Your task to perform on an android device: change the clock style Image 0: 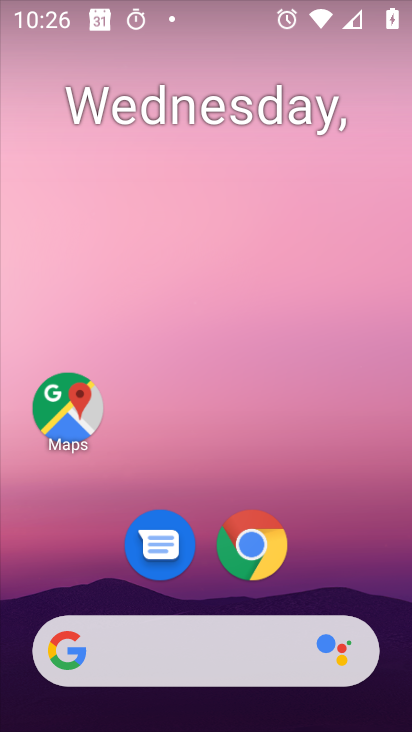
Step 0: press home button
Your task to perform on an android device: change the clock style Image 1: 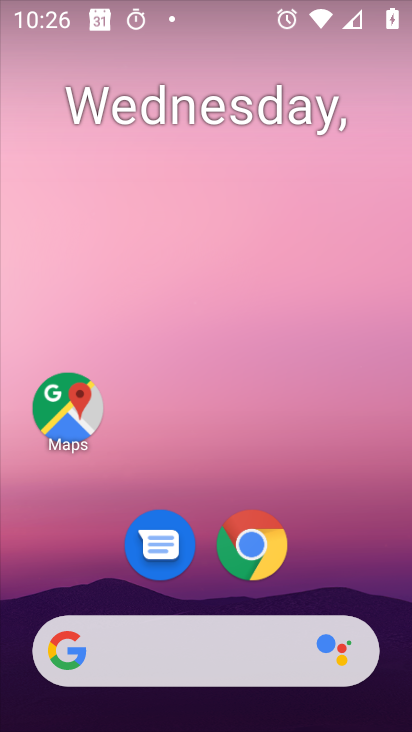
Step 1: drag from (175, 655) to (326, 79)
Your task to perform on an android device: change the clock style Image 2: 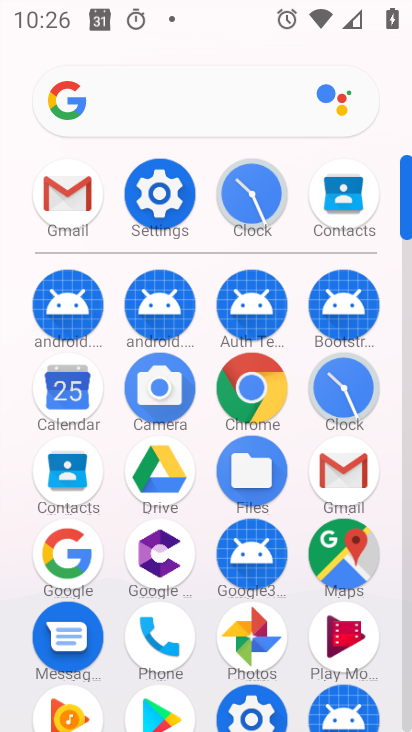
Step 2: click (346, 393)
Your task to perform on an android device: change the clock style Image 3: 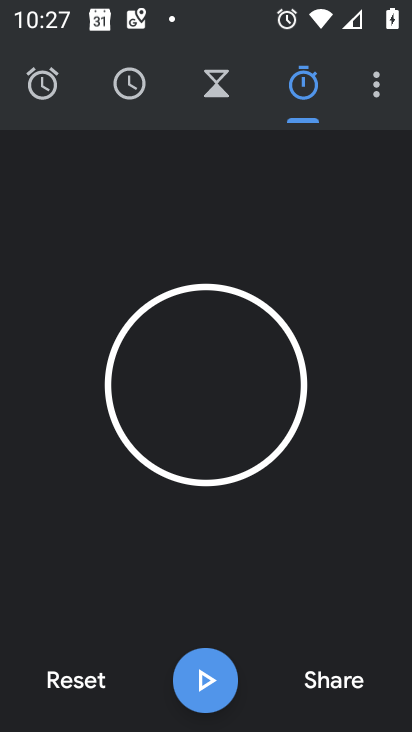
Step 3: click (376, 81)
Your task to perform on an android device: change the clock style Image 4: 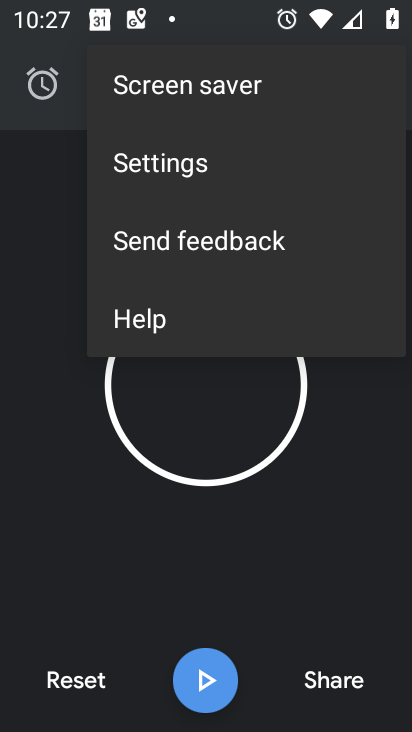
Step 4: click (139, 181)
Your task to perform on an android device: change the clock style Image 5: 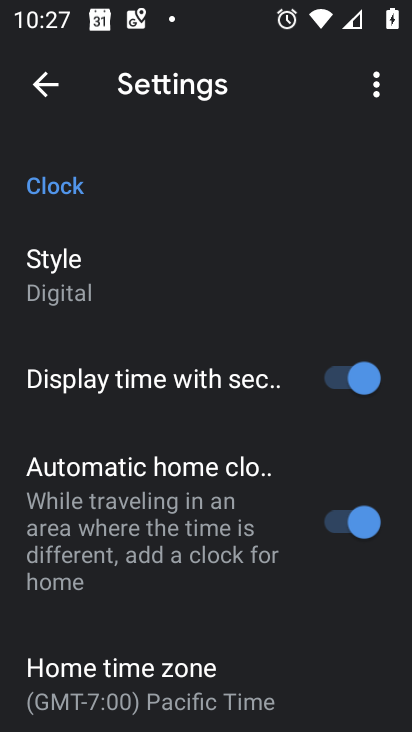
Step 5: click (75, 291)
Your task to perform on an android device: change the clock style Image 6: 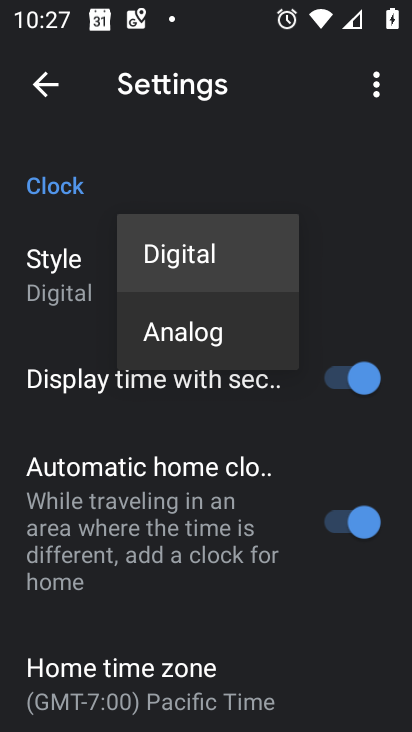
Step 6: click (151, 332)
Your task to perform on an android device: change the clock style Image 7: 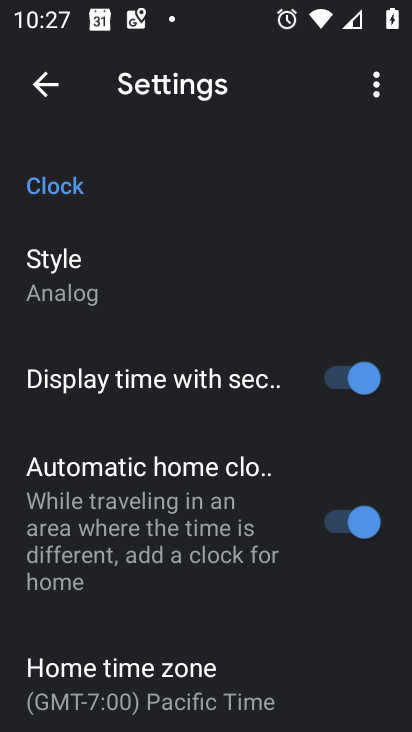
Step 7: task complete